Your task to perform on an android device: change the clock style Image 0: 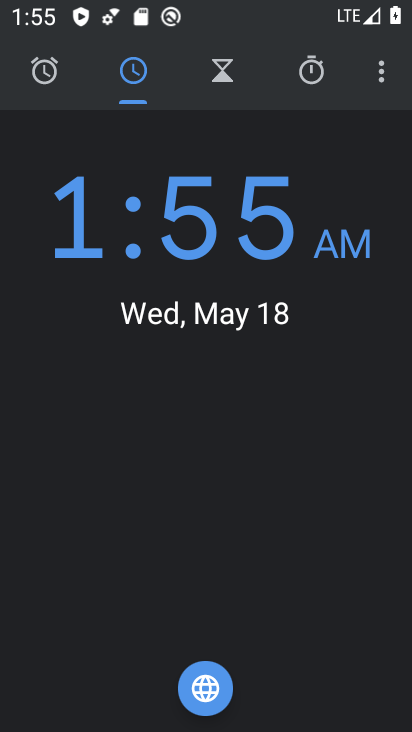
Step 0: click (379, 72)
Your task to perform on an android device: change the clock style Image 1: 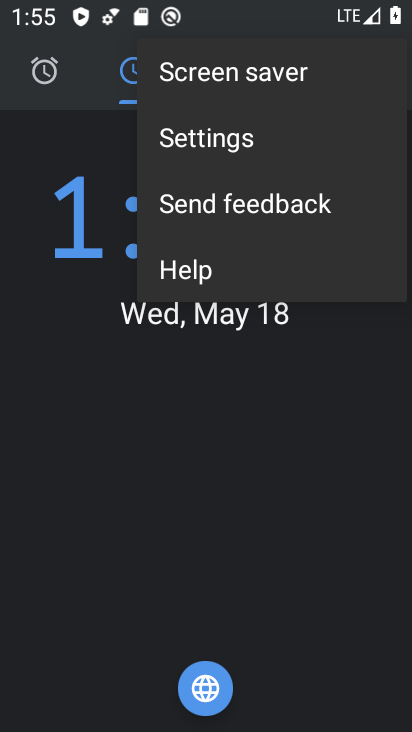
Step 1: click (239, 121)
Your task to perform on an android device: change the clock style Image 2: 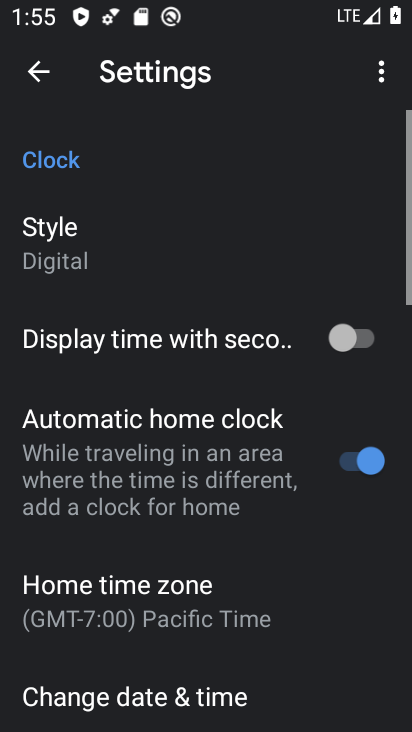
Step 2: click (97, 251)
Your task to perform on an android device: change the clock style Image 3: 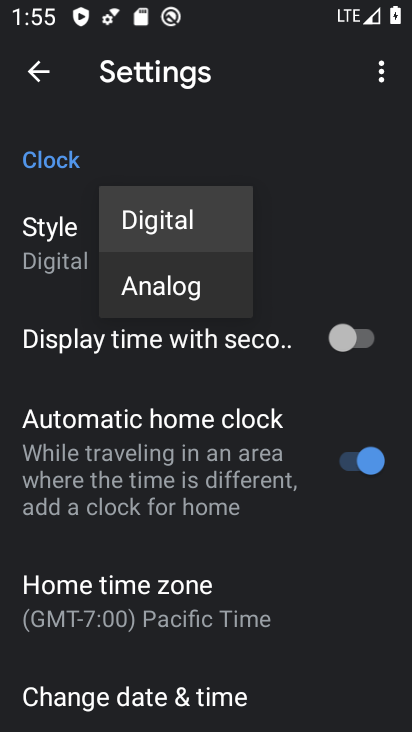
Step 3: click (127, 283)
Your task to perform on an android device: change the clock style Image 4: 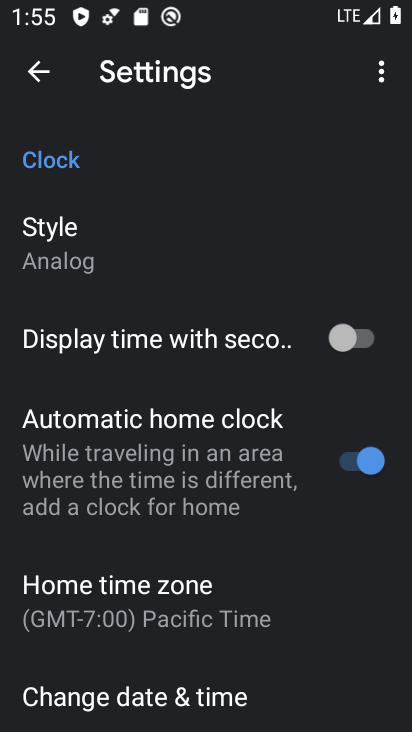
Step 4: task complete